Your task to perform on an android device: Search for pizza restaurants on Maps Image 0: 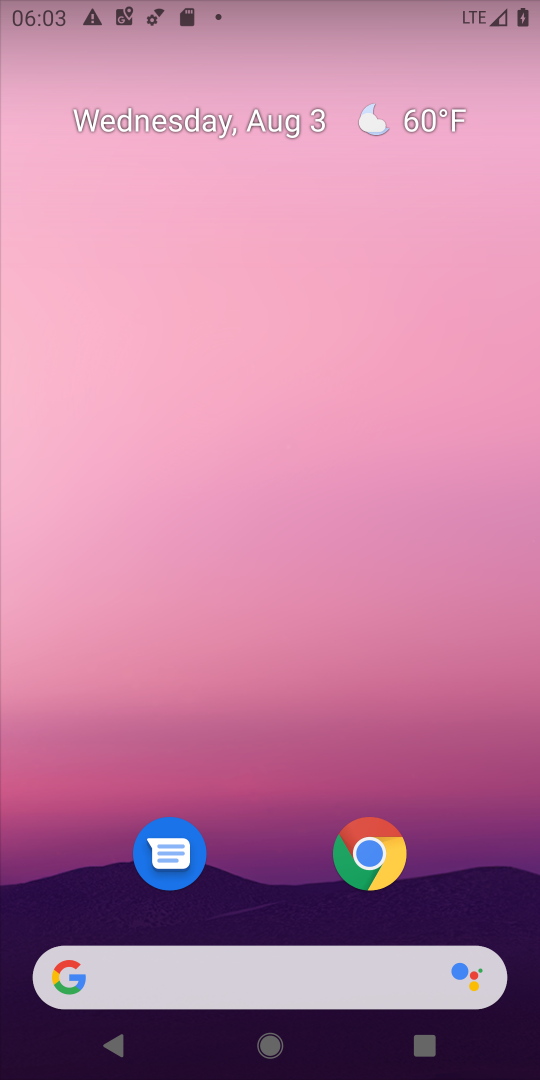
Step 0: press home button
Your task to perform on an android device: Search for pizza restaurants on Maps Image 1: 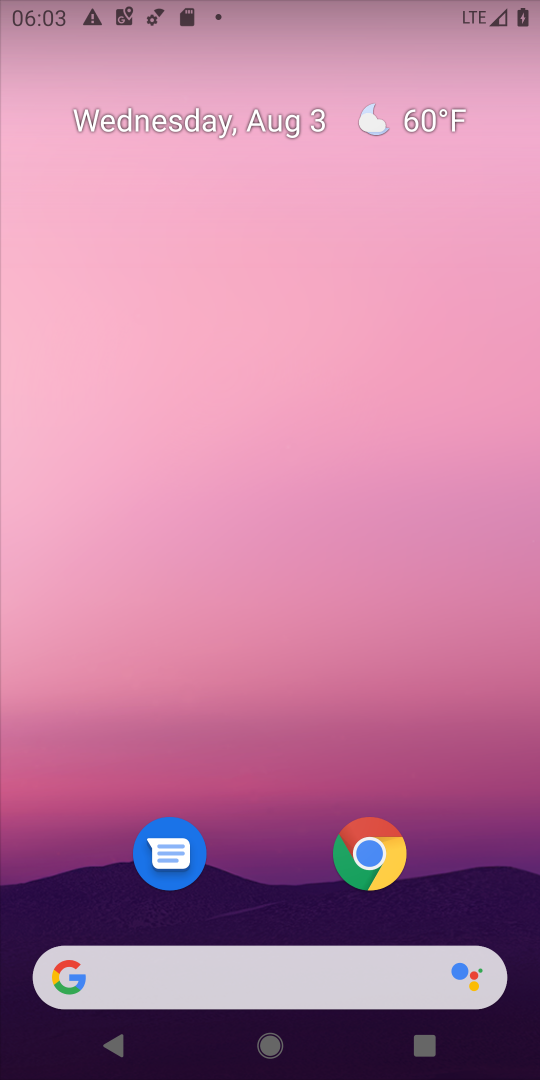
Step 1: click (275, 77)
Your task to perform on an android device: Search for pizza restaurants on Maps Image 2: 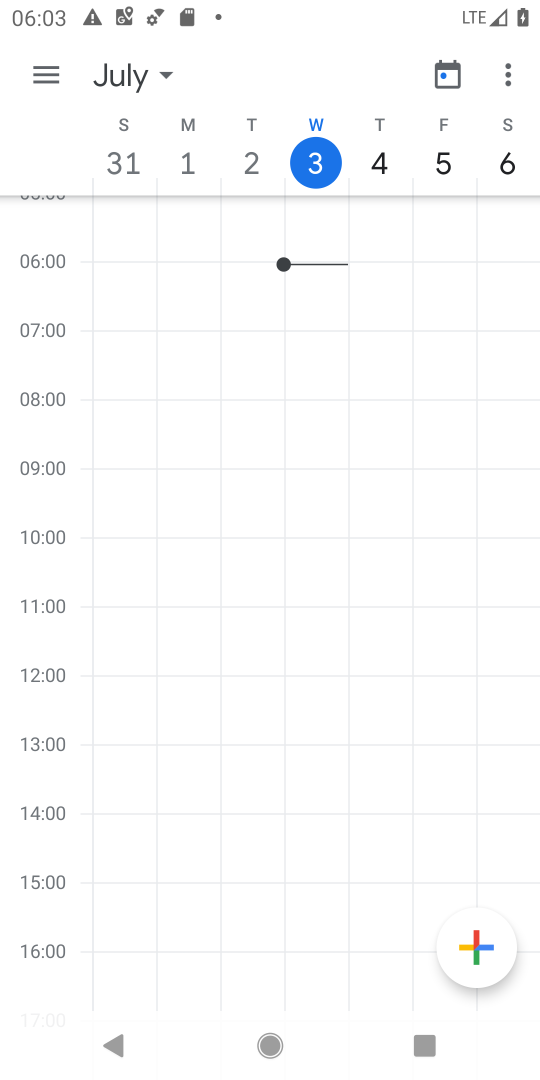
Step 2: drag from (277, 847) to (261, 175)
Your task to perform on an android device: Search for pizza restaurants on Maps Image 3: 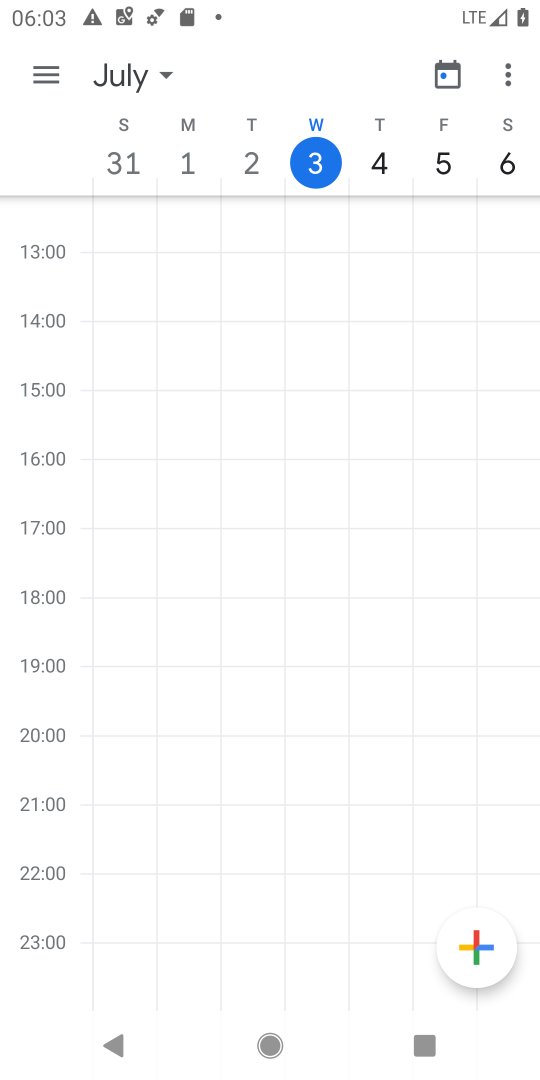
Step 3: press home button
Your task to perform on an android device: Search for pizza restaurants on Maps Image 4: 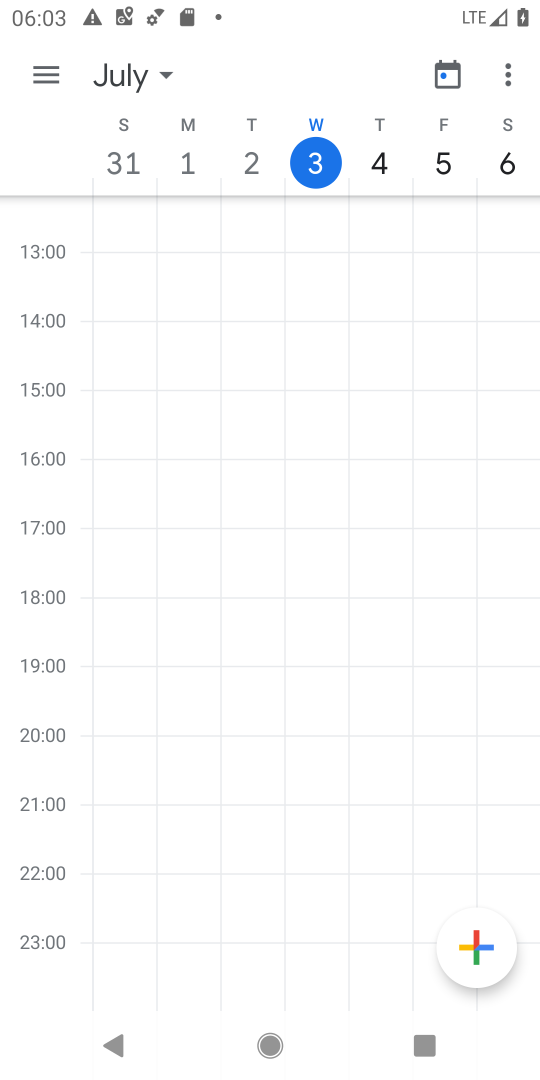
Step 4: press home button
Your task to perform on an android device: Search for pizza restaurants on Maps Image 5: 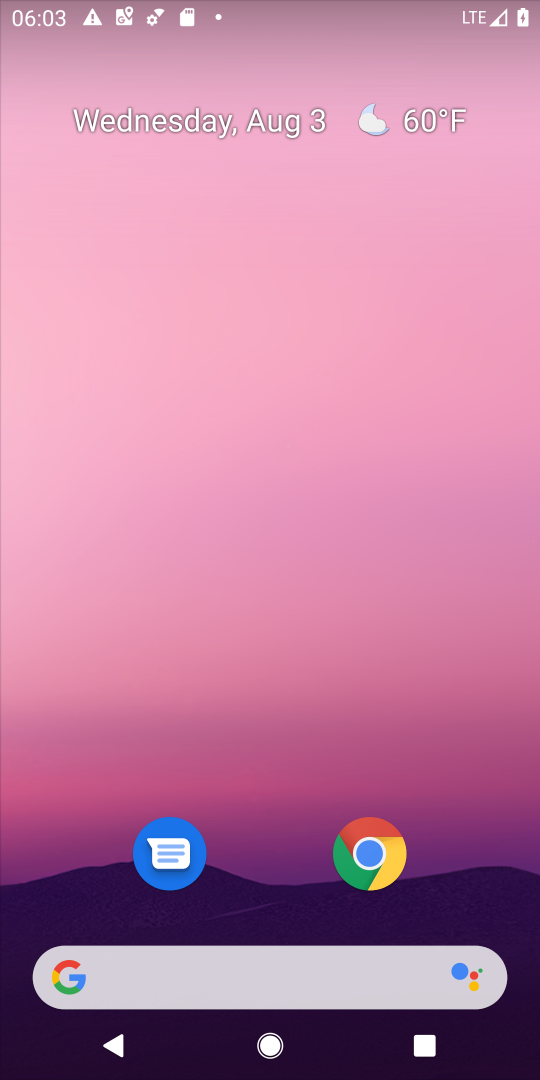
Step 5: press home button
Your task to perform on an android device: Search for pizza restaurants on Maps Image 6: 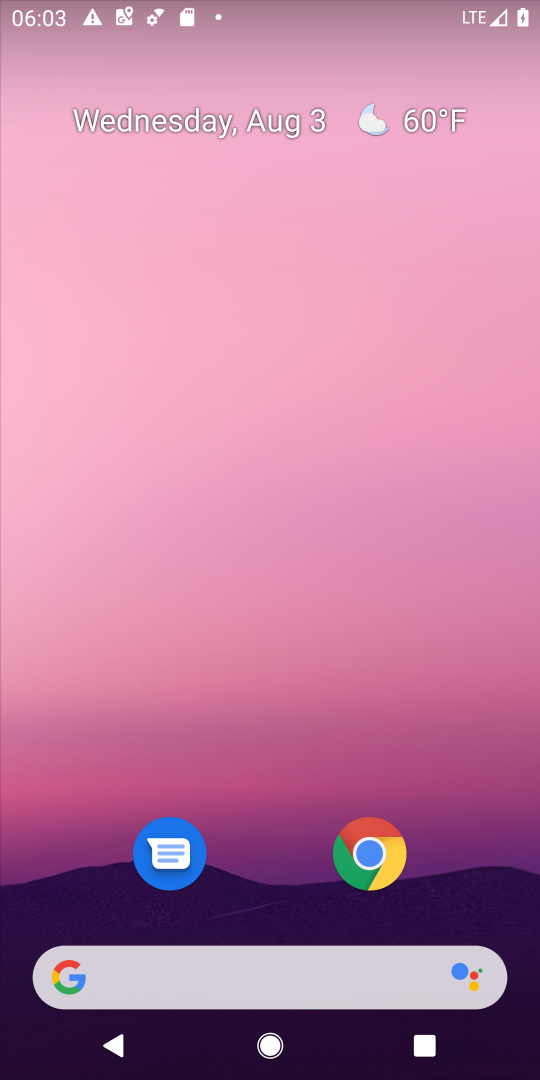
Step 6: drag from (247, 331) to (247, 60)
Your task to perform on an android device: Search for pizza restaurants on Maps Image 7: 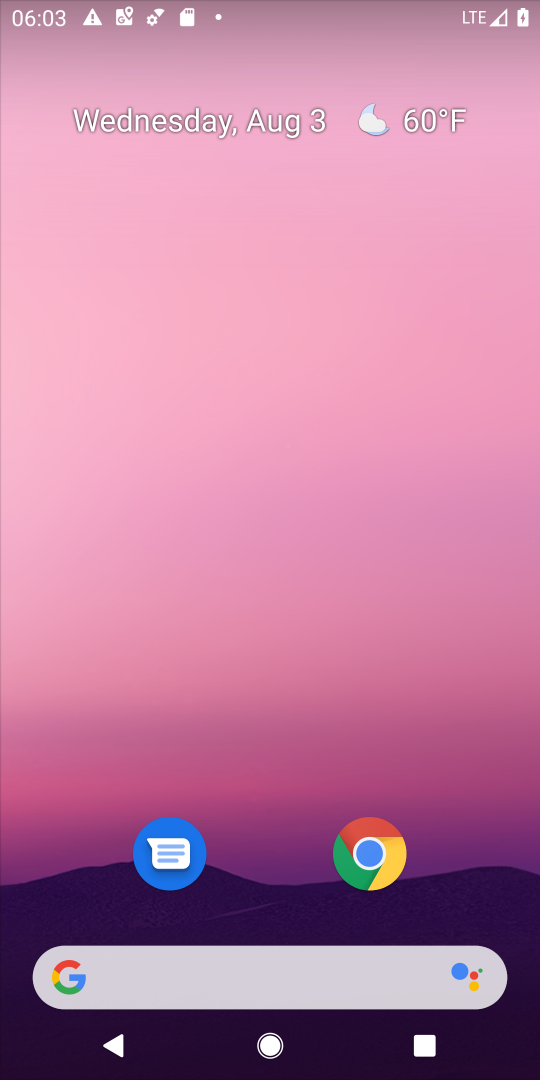
Step 7: drag from (264, 922) to (233, 23)
Your task to perform on an android device: Search for pizza restaurants on Maps Image 8: 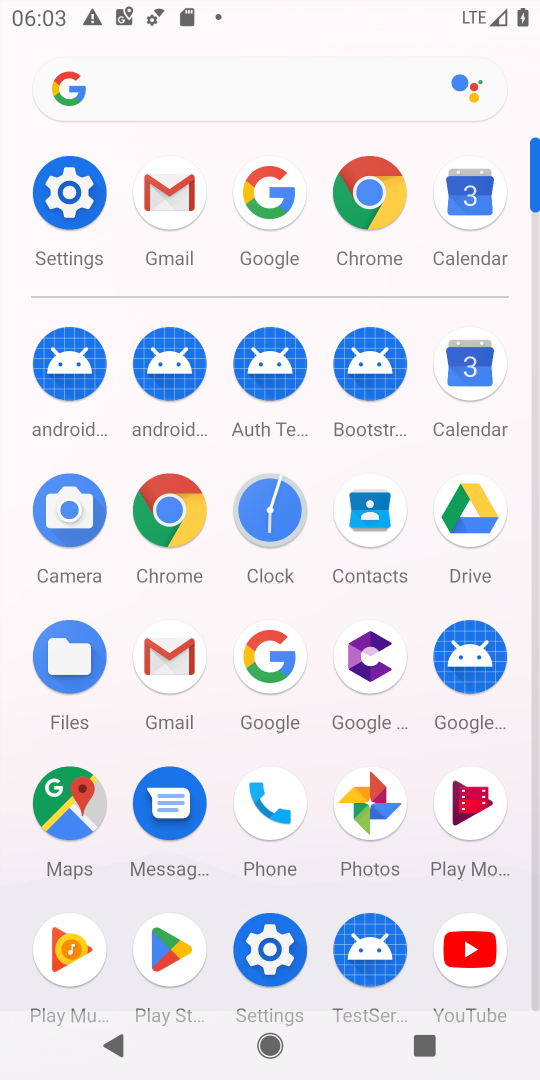
Step 8: click (71, 808)
Your task to perform on an android device: Search for pizza restaurants on Maps Image 9: 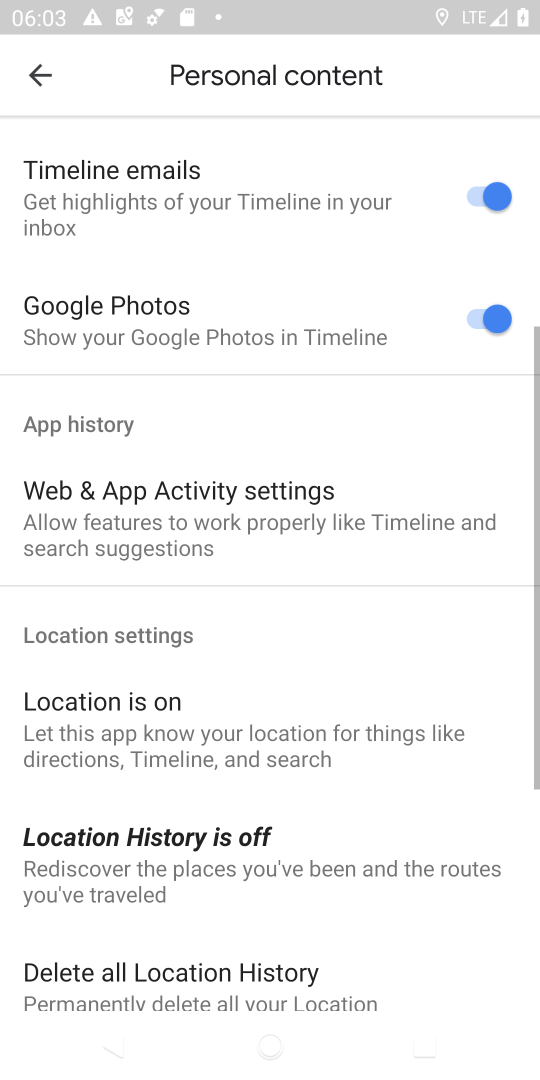
Step 9: click (55, 72)
Your task to perform on an android device: Search for pizza restaurants on Maps Image 10: 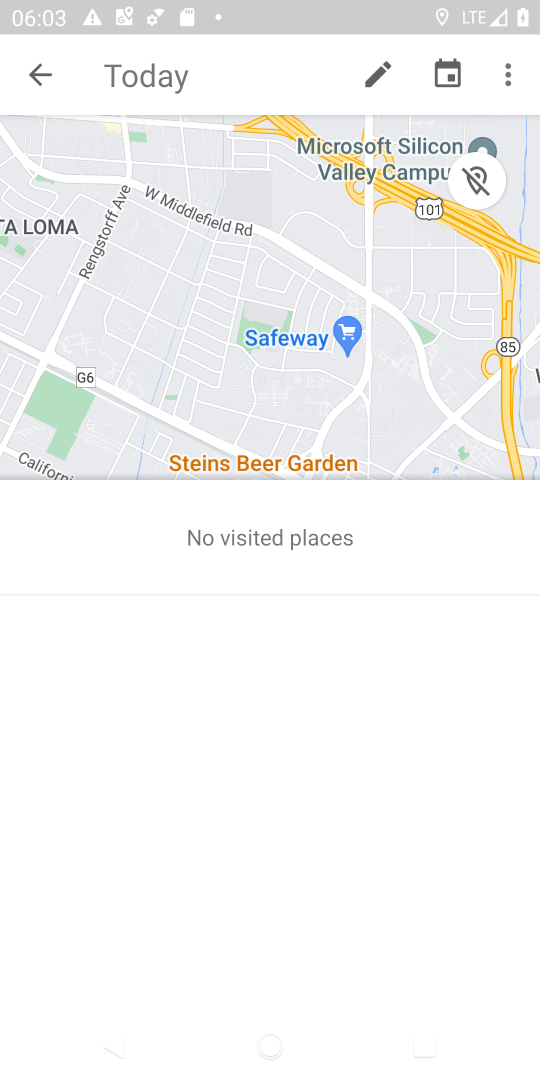
Step 10: click (55, 69)
Your task to perform on an android device: Search for pizza restaurants on Maps Image 11: 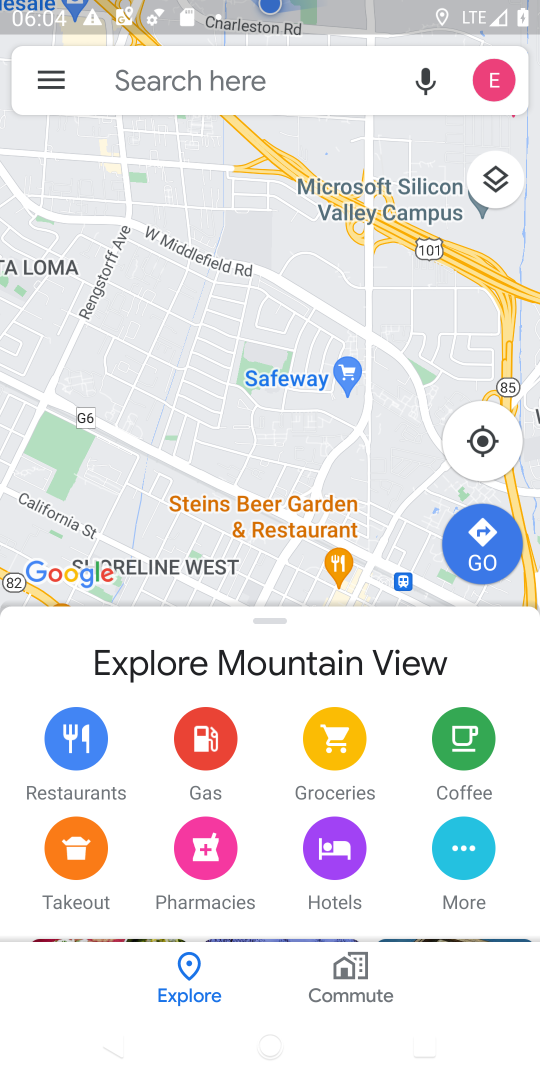
Step 11: click (270, 79)
Your task to perform on an android device: Search for pizza restaurants on Maps Image 12: 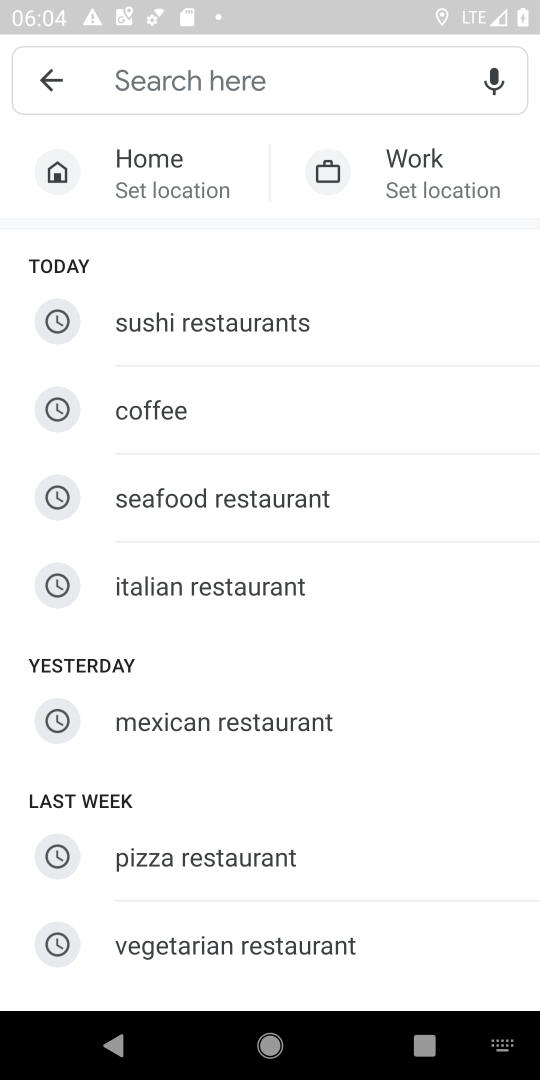
Step 12: type "Pizza restaurants"
Your task to perform on an android device: Search for pizza restaurants on Maps Image 13: 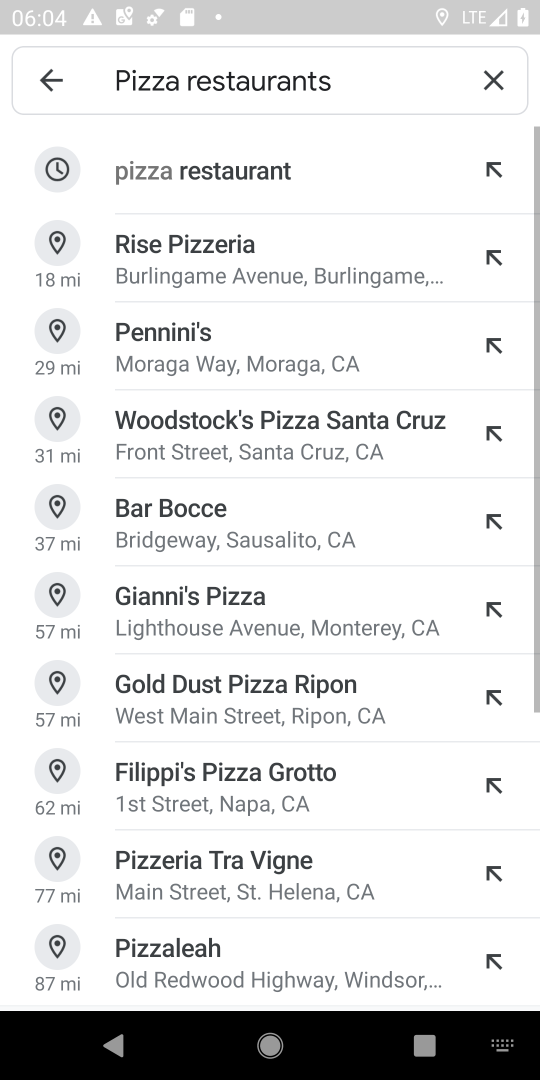
Step 13: click (238, 172)
Your task to perform on an android device: Search for pizza restaurants on Maps Image 14: 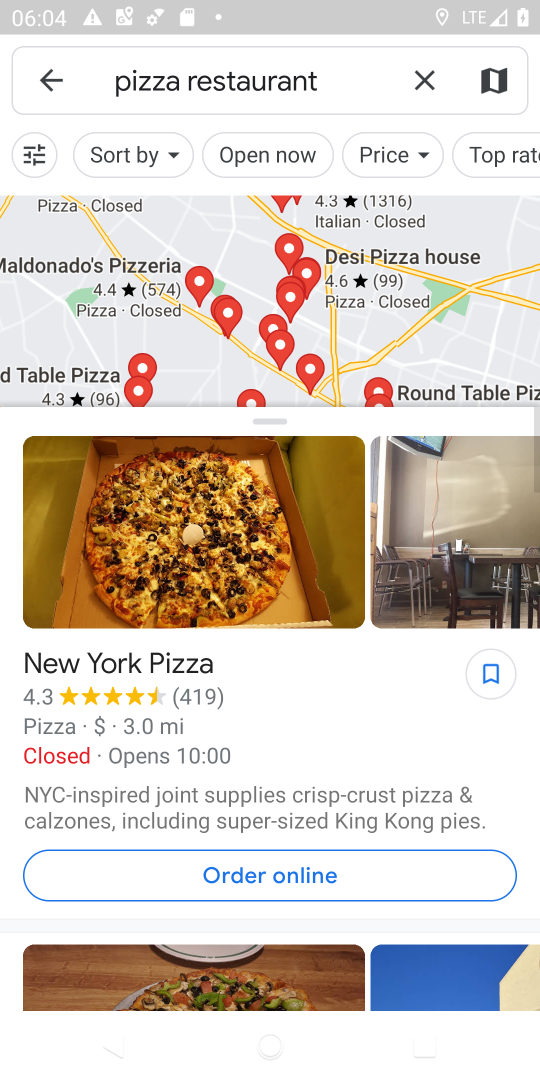
Step 14: task complete